Your task to perform on an android device: set an alarm Image 0: 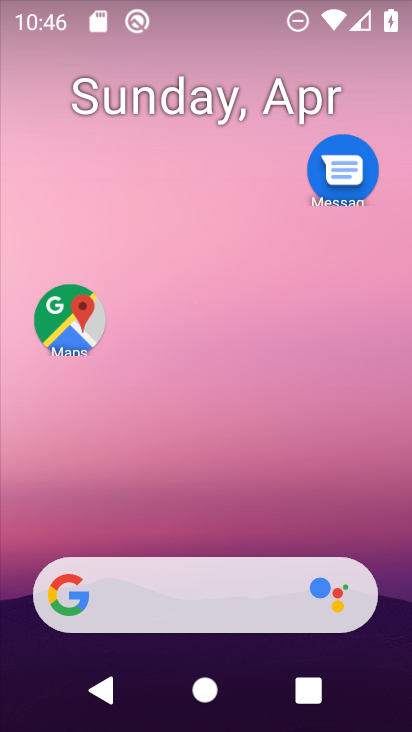
Step 0: drag from (232, 496) to (229, 61)
Your task to perform on an android device: set an alarm Image 1: 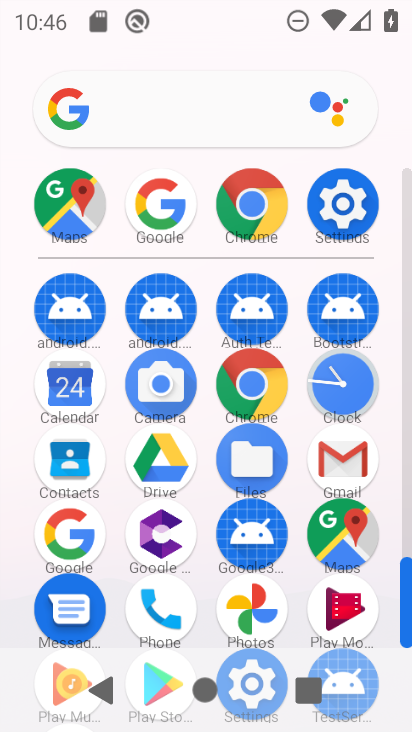
Step 1: click (339, 375)
Your task to perform on an android device: set an alarm Image 2: 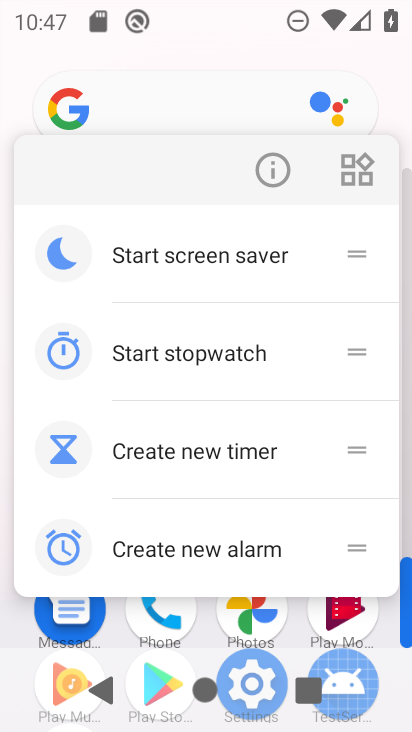
Step 2: click (274, 160)
Your task to perform on an android device: set an alarm Image 3: 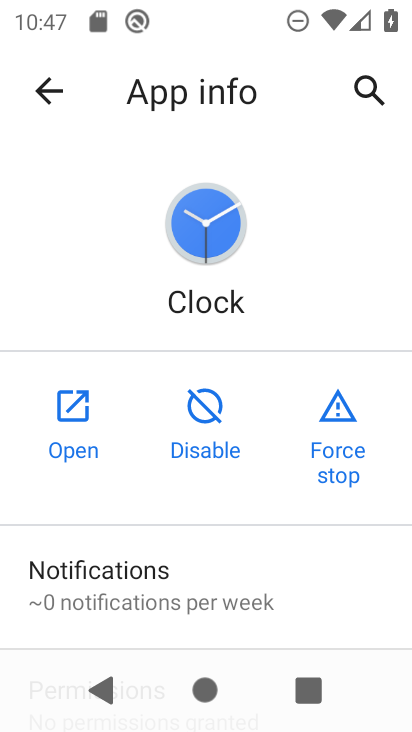
Step 3: click (78, 425)
Your task to perform on an android device: set an alarm Image 4: 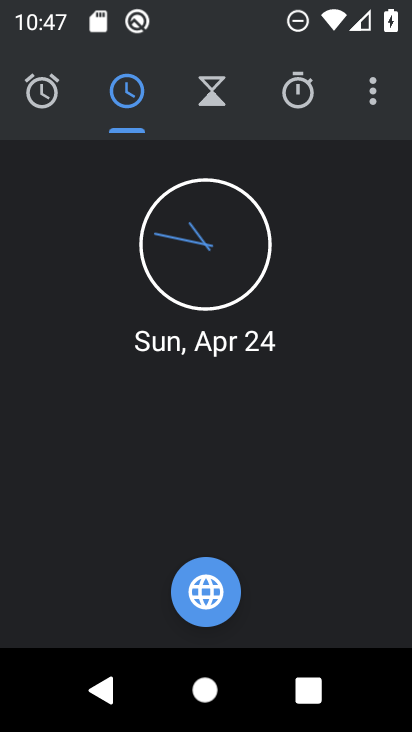
Step 4: click (38, 125)
Your task to perform on an android device: set an alarm Image 5: 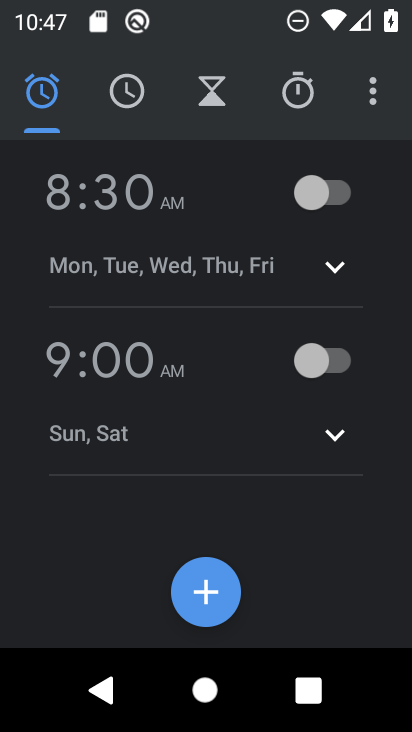
Step 5: drag from (207, 344) to (226, 211)
Your task to perform on an android device: set an alarm Image 6: 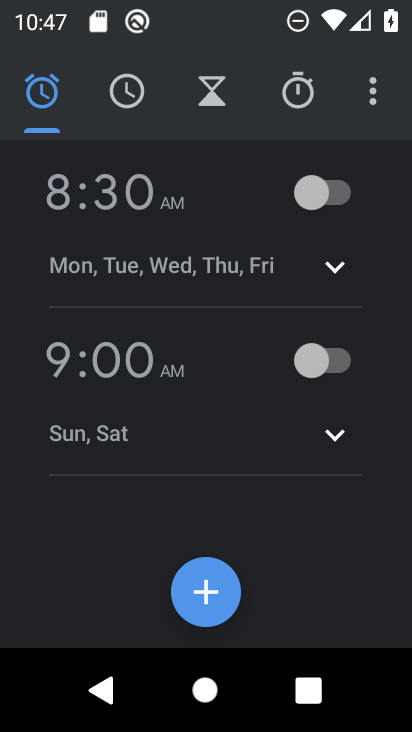
Step 6: click (305, 207)
Your task to perform on an android device: set an alarm Image 7: 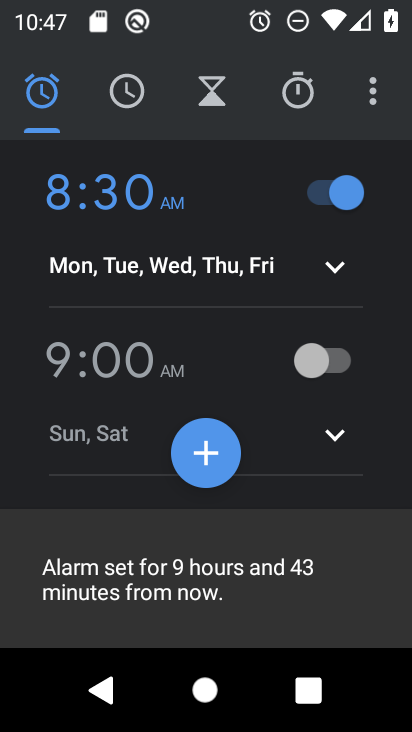
Step 7: task complete